Your task to perform on an android device: add a contact Image 0: 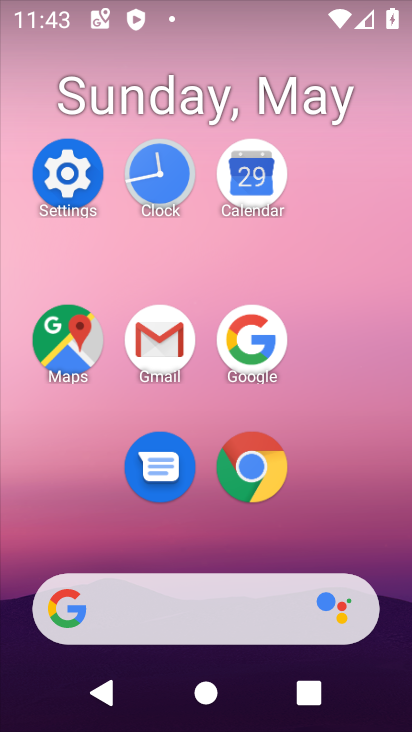
Step 0: drag from (331, 494) to (328, 0)
Your task to perform on an android device: add a contact Image 1: 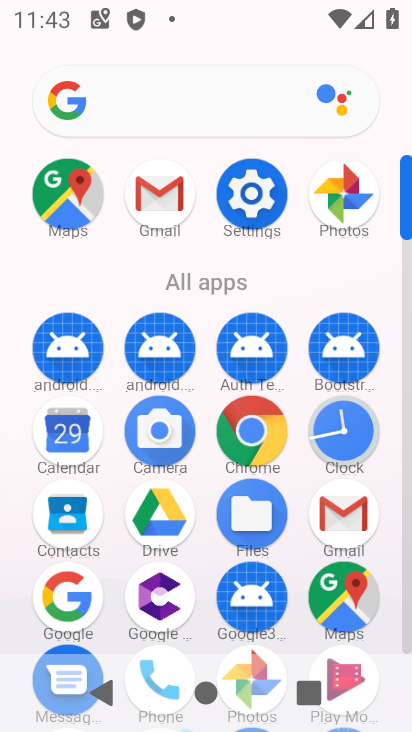
Step 1: click (61, 519)
Your task to perform on an android device: add a contact Image 2: 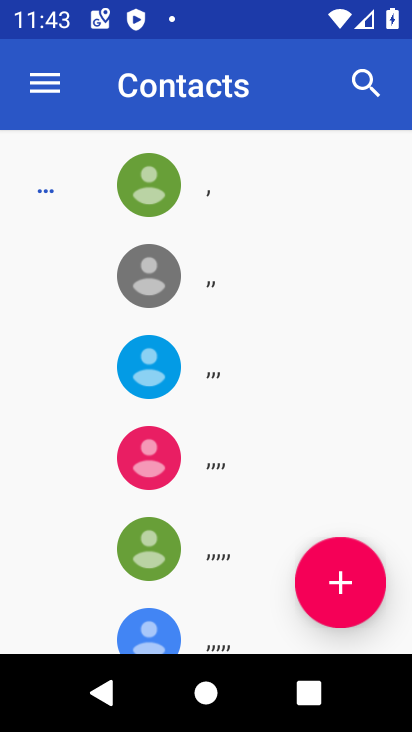
Step 2: click (310, 569)
Your task to perform on an android device: add a contact Image 3: 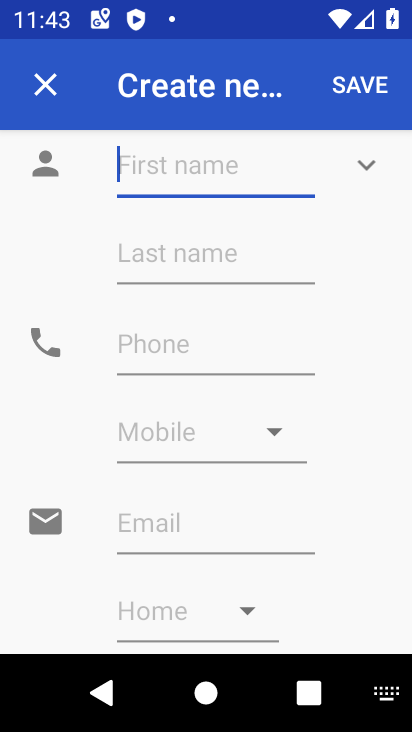
Step 3: type "addin"
Your task to perform on an android device: add a contact Image 4: 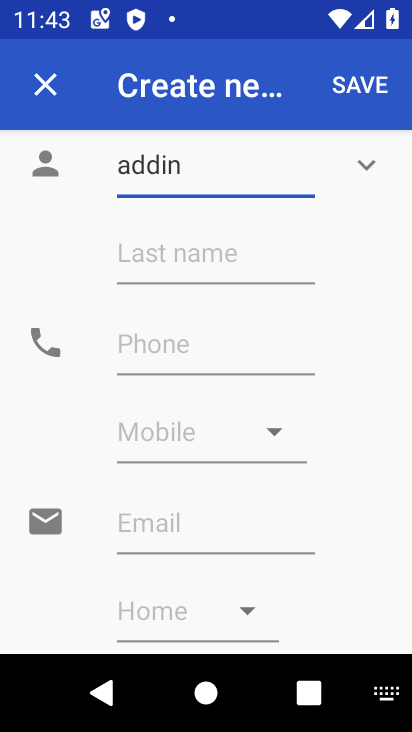
Step 4: click (185, 341)
Your task to perform on an android device: add a contact Image 5: 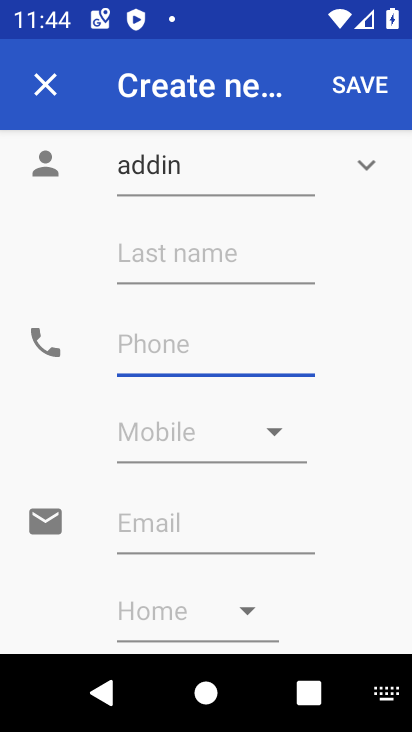
Step 5: type "3344332232"
Your task to perform on an android device: add a contact Image 6: 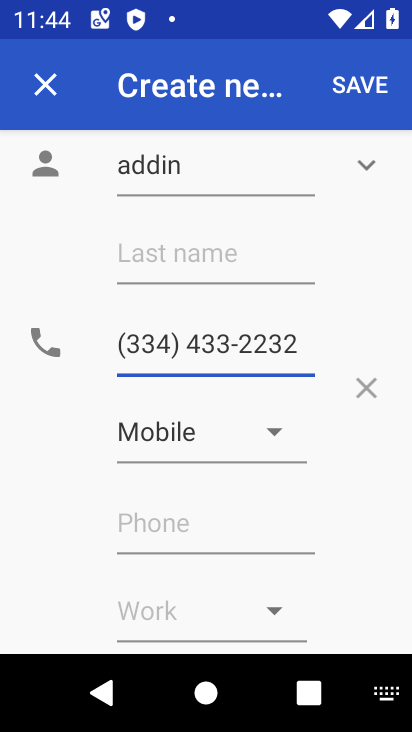
Step 6: click (347, 98)
Your task to perform on an android device: add a contact Image 7: 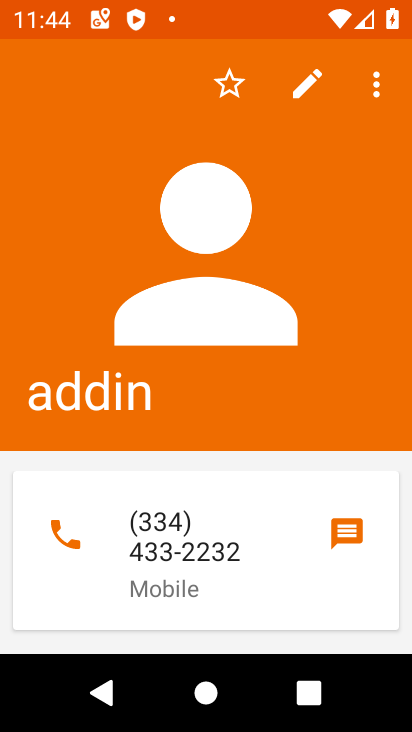
Step 7: task complete